Your task to perform on an android device: move a message to another label in the gmail app Image 0: 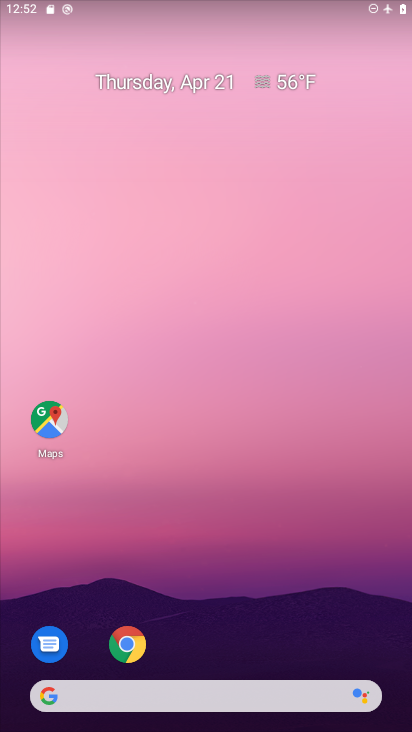
Step 0: drag from (200, 647) to (238, 65)
Your task to perform on an android device: move a message to another label in the gmail app Image 1: 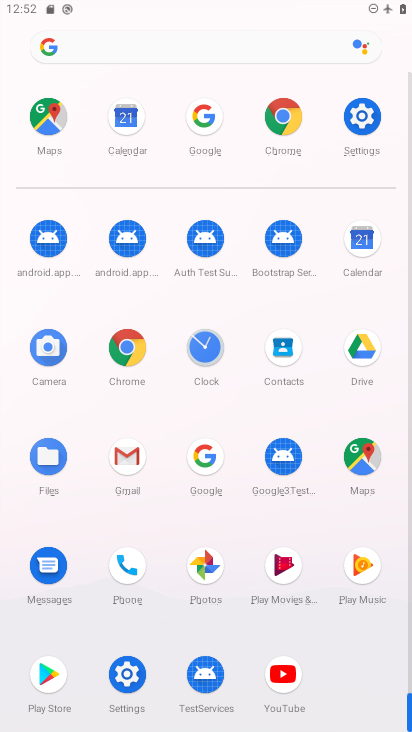
Step 1: click (123, 462)
Your task to perform on an android device: move a message to another label in the gmail app Image 2: 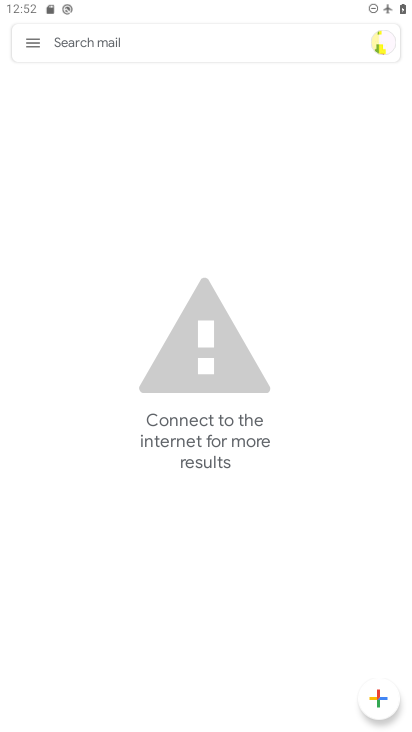
Step 2: task complete